Your task to perform on an android device: check battery use Image 0: 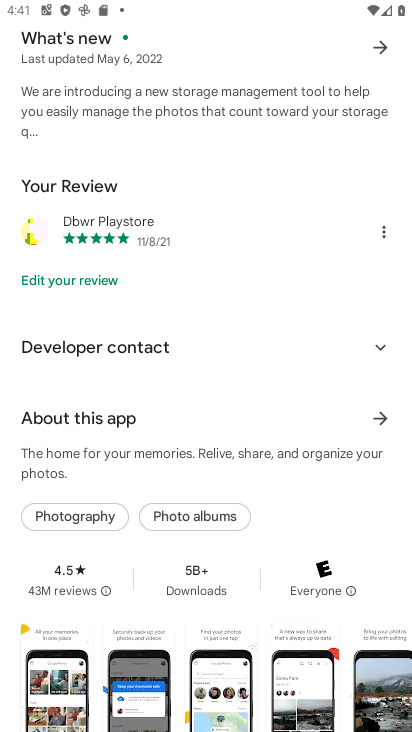
Step 0: press home button
Your task to perform on an android device: check battery use Image 1: 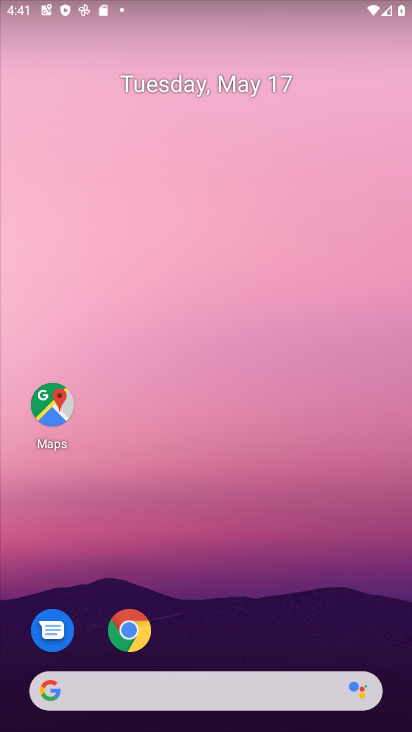
Step 1: drag from (211, 727) to (235, 151)
Your task to perform on an android device: check battery use Image 2: 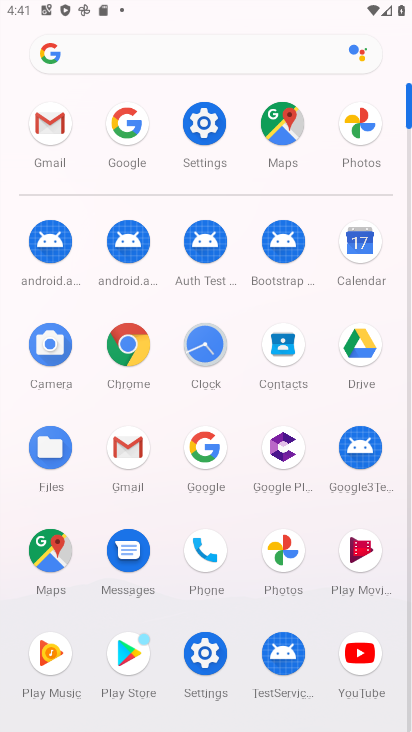
Step 2: click (207, 115)
Your task to perform on an android device: check battery use Image 3: 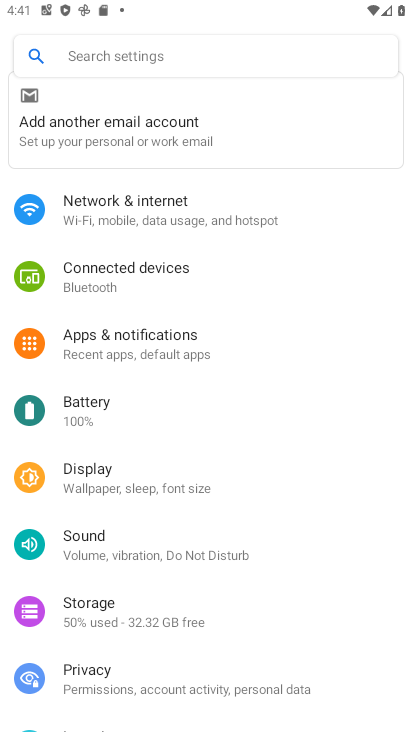
Step 3: click (78, 409)
Your task to perform on an android device: check battery use Image 4: 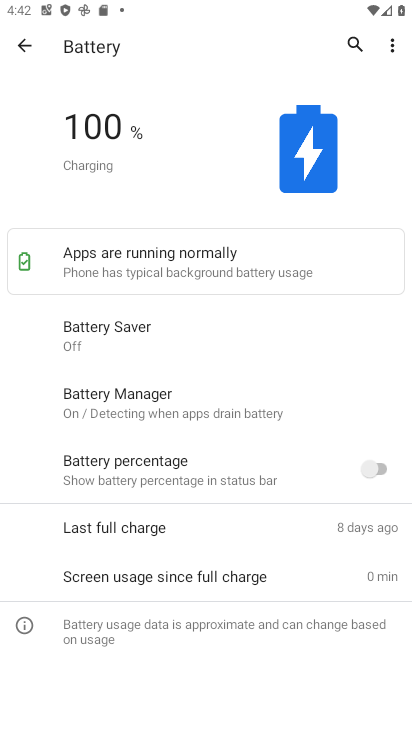
Step 4: click (393, 44)
Your task to perform on an android device: check battery use Image 5: 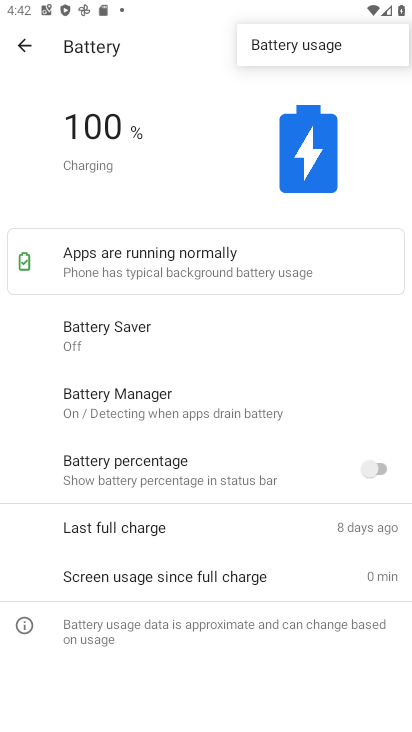
Step 5: click (276, 46)
Your task to perform on an android device: check battery use Image 6: 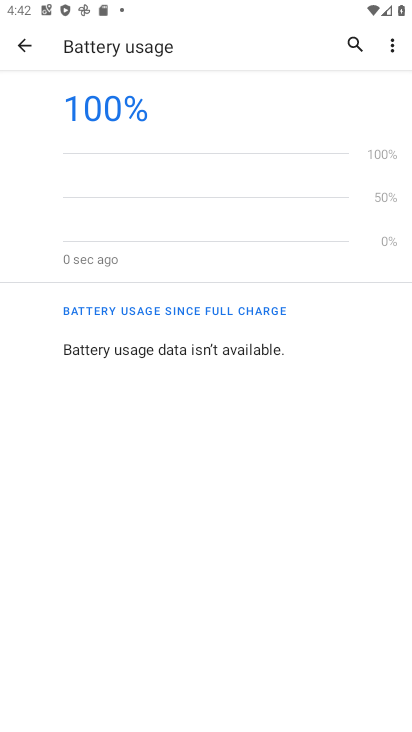
Step 6: task complete